Your task to perform on an android device: Go to sound settings Image 0: 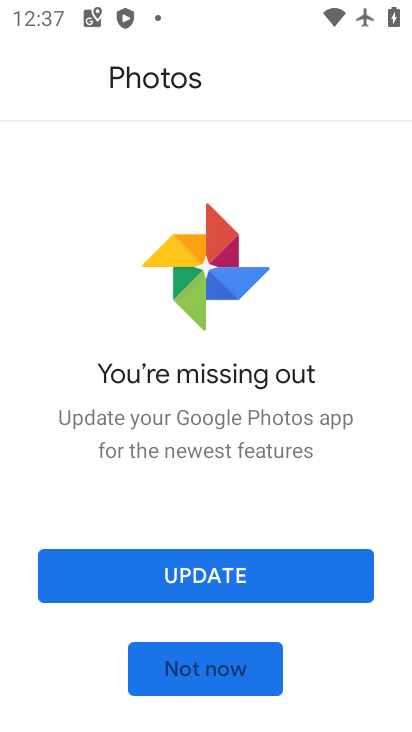
Step 0: press home button
Your task to perform on an android device: Go to sound settings Image 1: 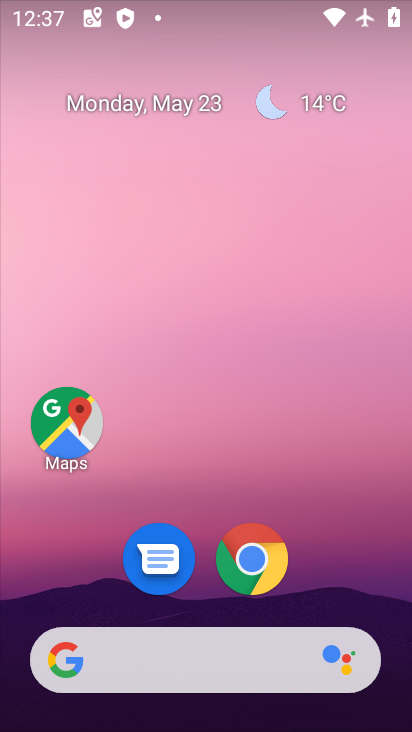
Step 1: drag from (352, 604) to (351, 3)
Your task to perform on an android device: Go to sound settings Image 2: 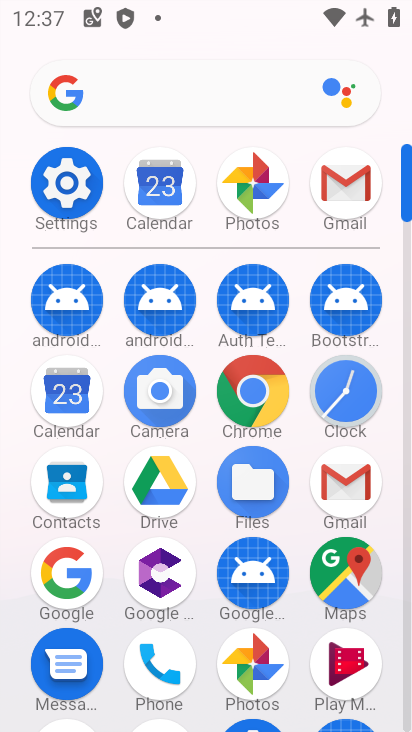
Step 2: click (69, 183)
Your task to perform on an android device: Go to sound settings Image 3: 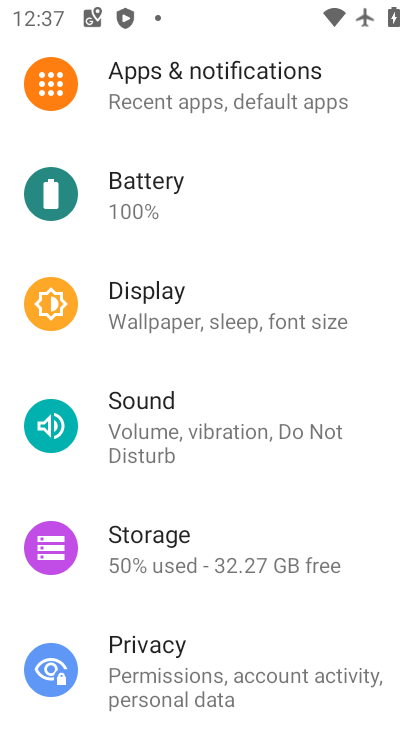
Step 3: click (178, 438)
Your task to perform on an android device: Go to sound settings Image 4: 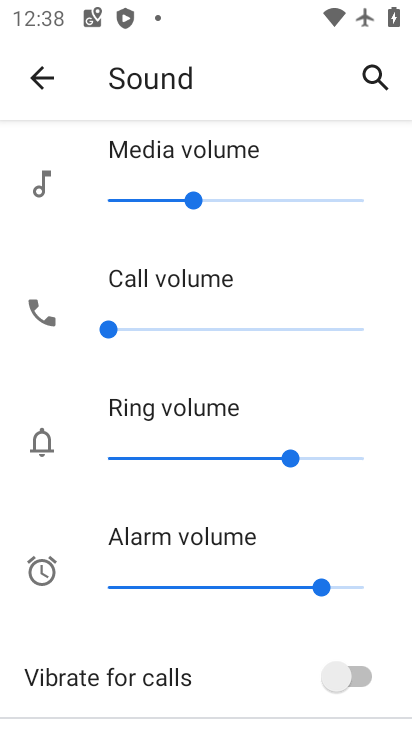
Step 4: task complete